Your task to perform on an android device: Open accessibility settings Image 0: 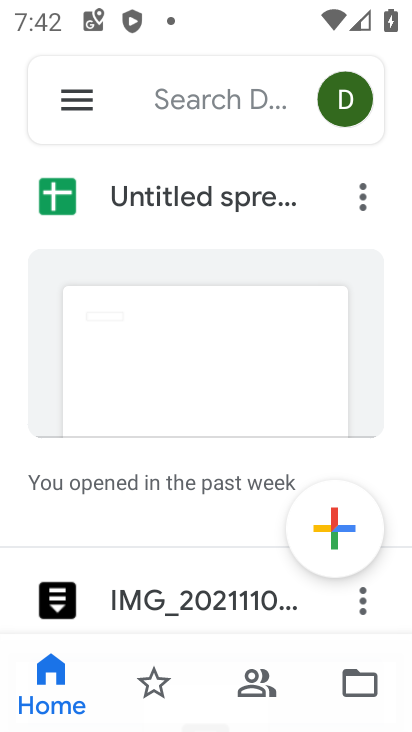
Step 0: press home button
Your task to perform on an android device: Open accessibility settings Image 1: 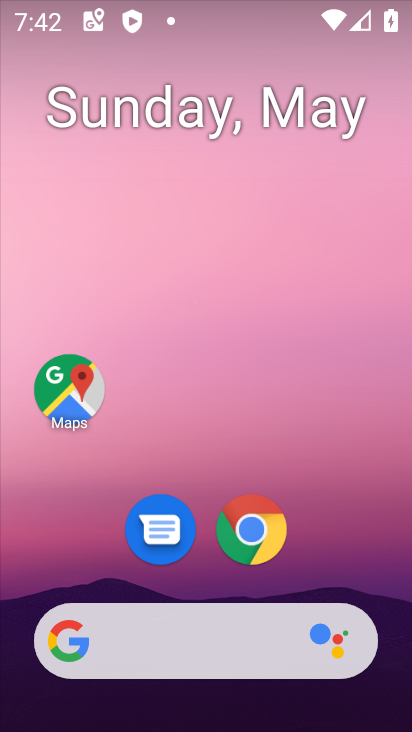
Step 1: drag from (338, 575) to (338, 2)
Your task to perform on an android device: Open accessibility settings Image 2: 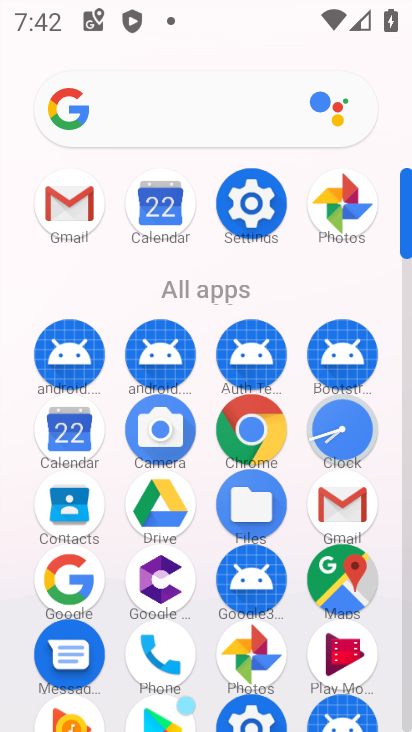
Step 2: click (250, 209)
Your task to perform on an android device: Open accessibility settings Image 3: 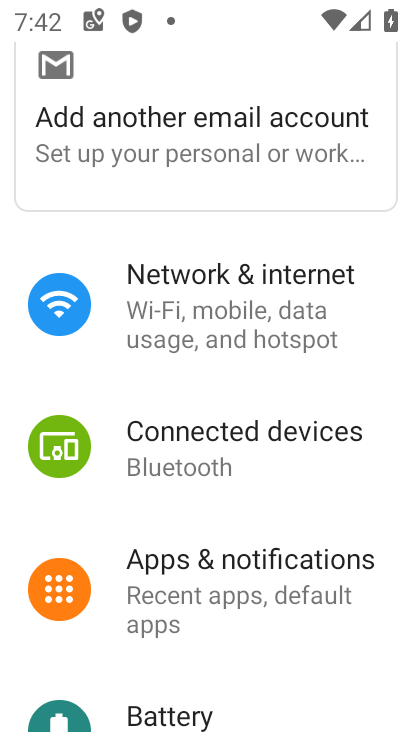
Step 3: drag from (360, 623) to (354, 54)
Your task to perform on an android device: Open accessibility settings Image 4: 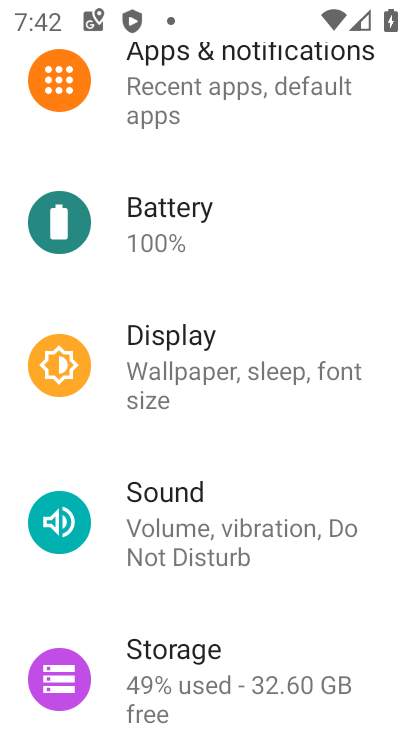
Step 4: drag from (378, 656) to (377, 178)
Your task to perform on an android device: Open accessibility settings Image 5: 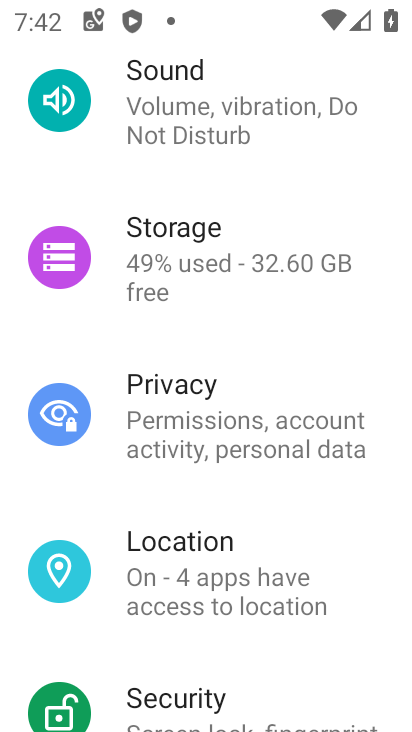
Step 5: drag from (365, 601) to (343, 176)
Your task to perform on an android device: Open accessibility settings Image 6: 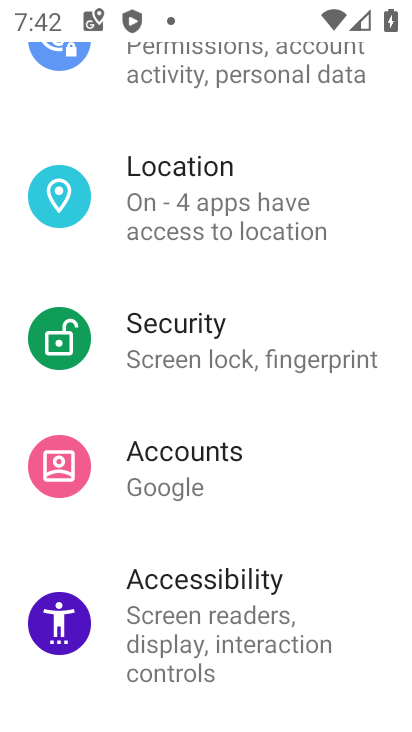
Step 6: click (216, 635)
Your task to perform on an android device: Open accessibility settings Image 7: 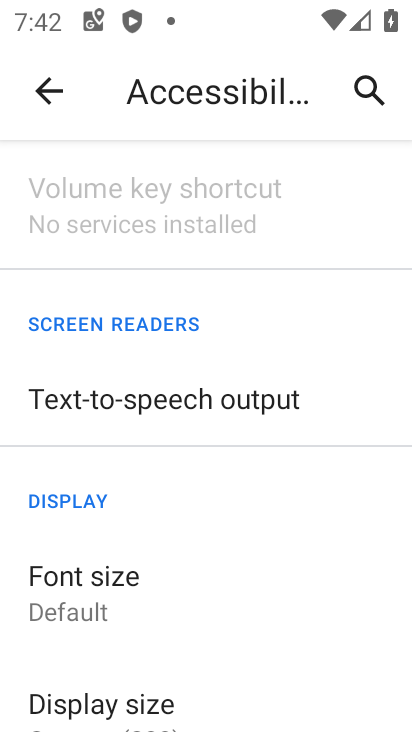
Step 7: task complete